Your task to perform on an android device: open the mobile data screen to see how much data has been used Image 0: 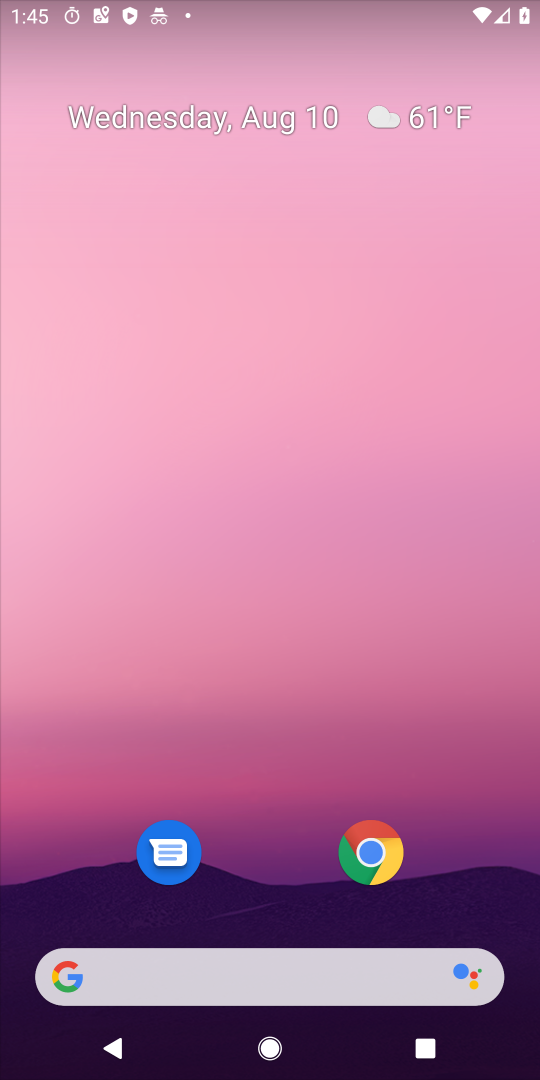
Step 0: drag from (258, 869) to (392, 20)
Your task to perform on an android device: open the mobile data screen to see how much data has been used Image 1: 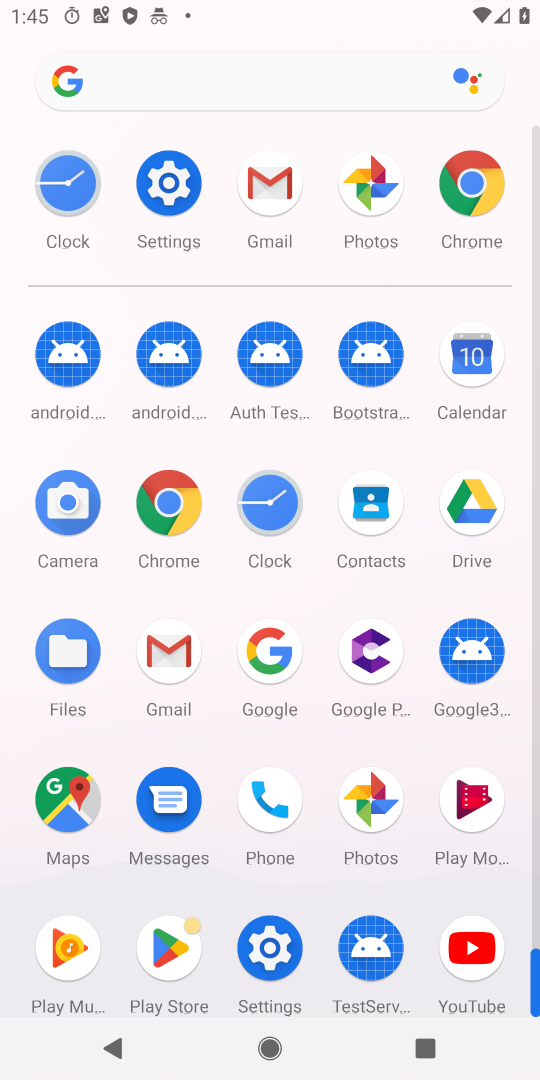
Step 1: click (271, 964)
Your task to perform on an android device: open the mobile data screen to see how much data has been used Image 2: 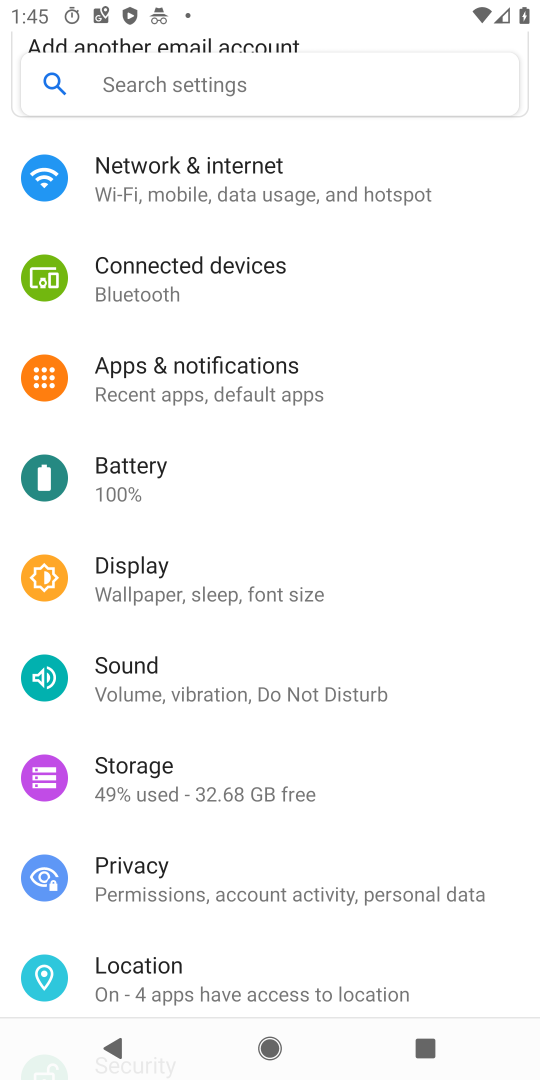
Step 2: click (274, 179)
Your task to perform on an android device: open the mobile data screen to see how much data has been used Image 3: 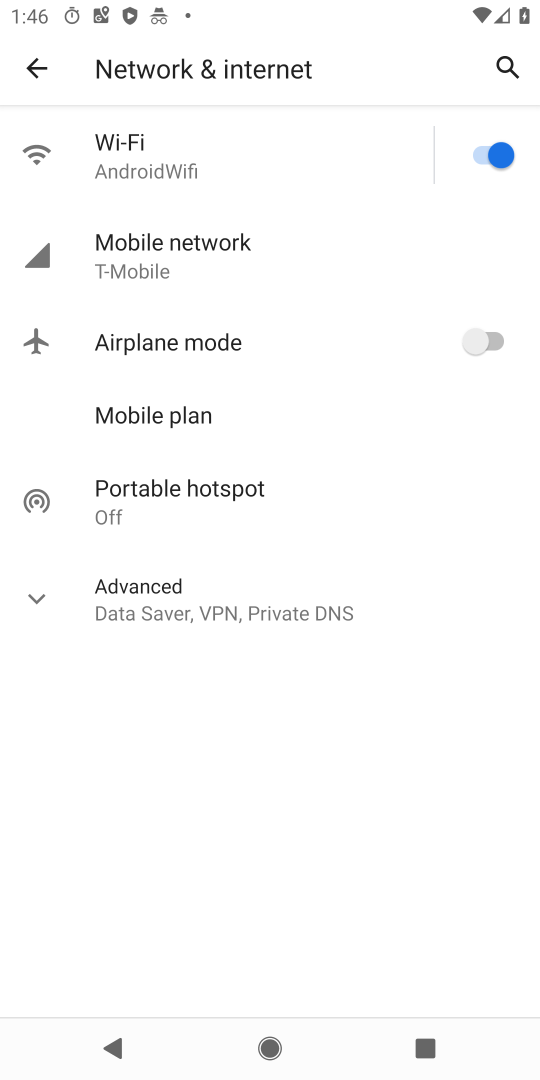
Step 3: click (246, 246)
Your task to perform on an android device: open the mobile data screen to see how much data has been used Image 4: 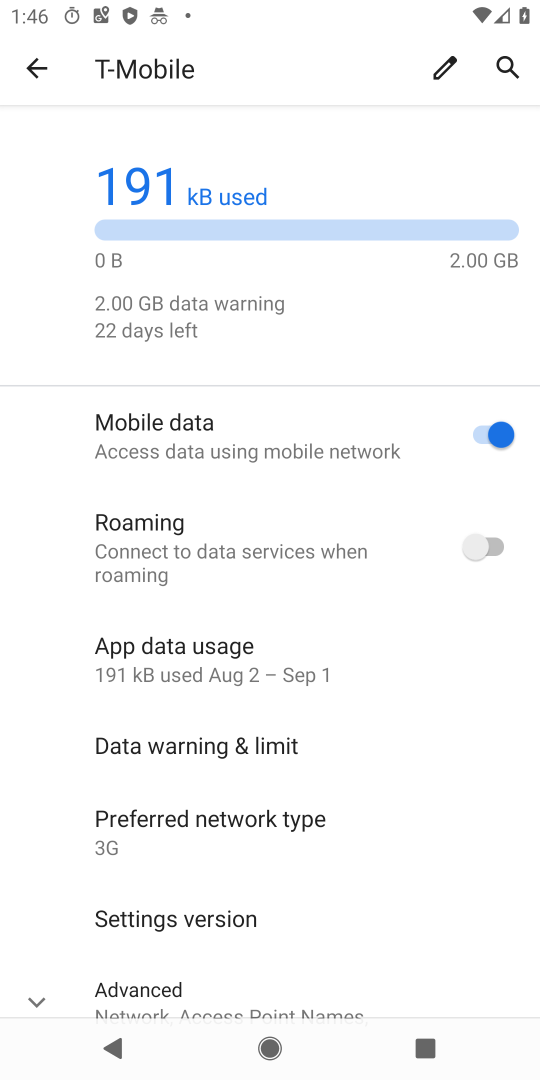
Step 4: task complete